Your task to perform on an android device: manage bookmarks in the chrome app Image 0: 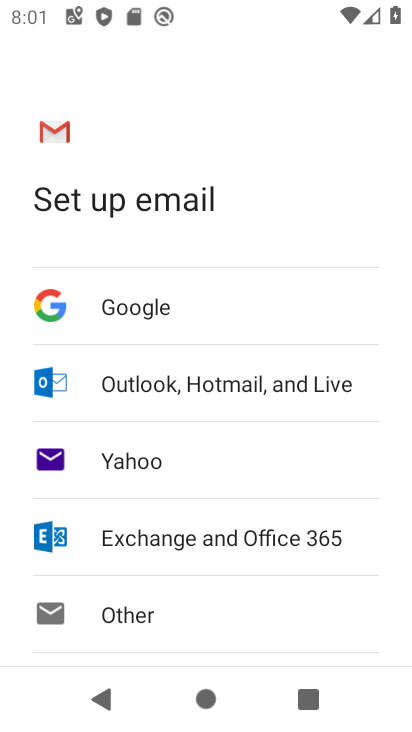
Step 0: press home button
Your task to perform on an android device: manage bookmarks in the chrome app Image 1: 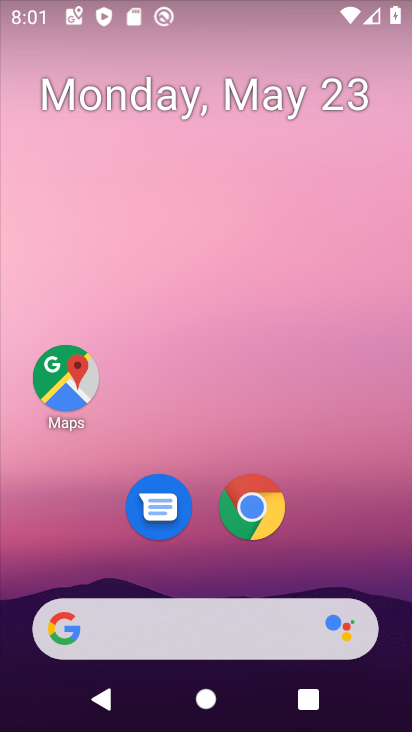
Step 1: drag from (363, 507) to (362, 185)
Your task to perform on an android device: manage bookmarks in the chrome app Image 2: 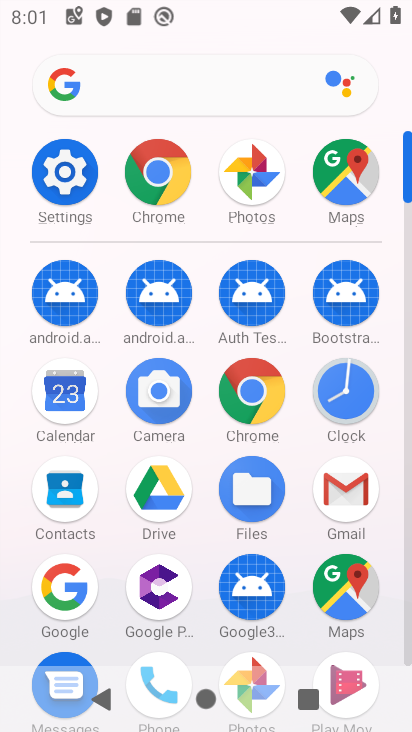
Step 2: click (254, 411)
Your task to perform on an android device: manage bookmarks in the chrome app Image 3: 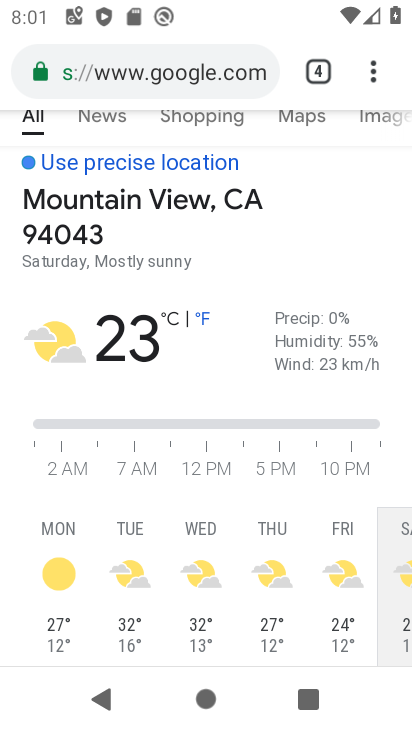
Step 3: drag from (379, 74) to (294, 273)
Your task to perform on an android device: manage bookmarks in the chrome app Image 4: 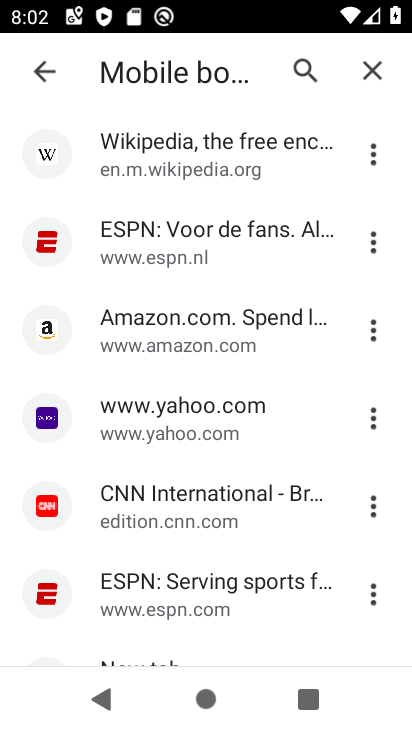
Step 4: click (372, 155)
Your task to perform on an android device: manage bookmarks in the chrome app Image 5: 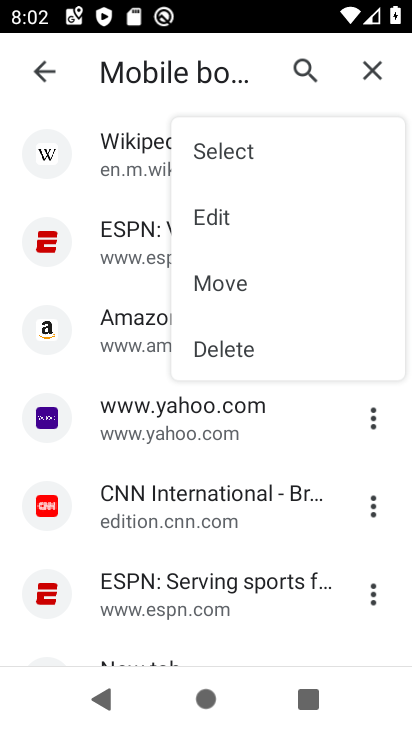
Step 5: click (265, 336)
Your task to perform on an android device: manage bookmarks in the chrome app Image 6: 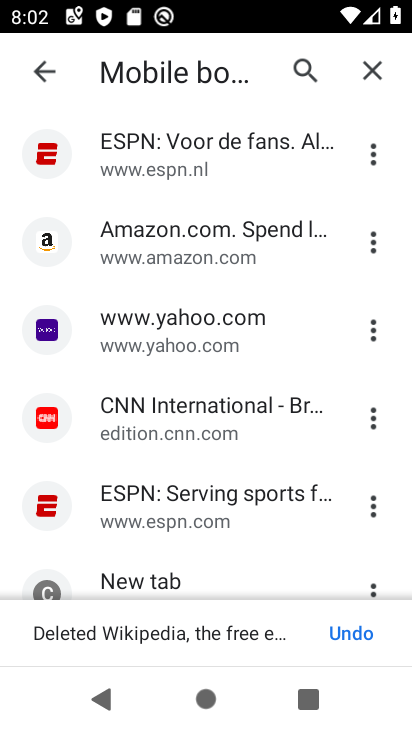
Step 6: task complete